Your task to perform on an android device: change notification settings in the gmail app Image 0: 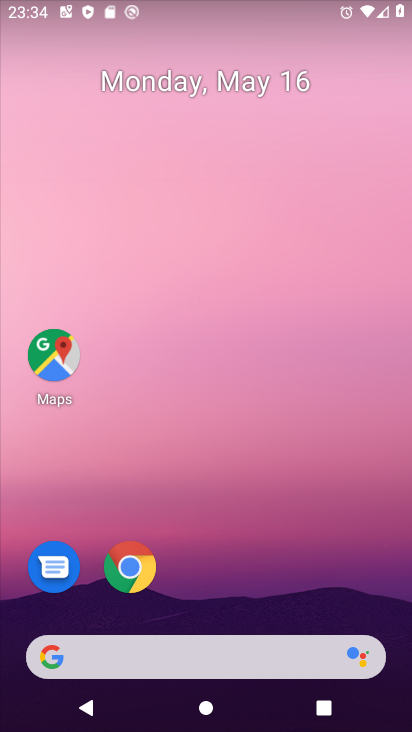
Step 0: drag from (246, 479) to (140, 14)
Your task to perform on an android device: change notification settings in the gmail app Image 1: 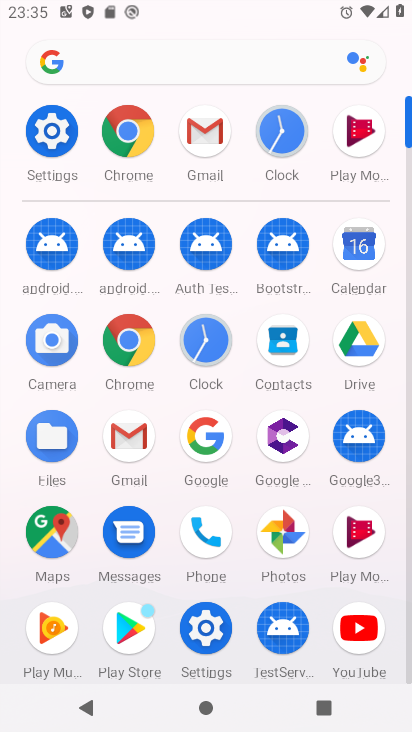
Step 1: click (126, 436)
Your task to perform on an android device: change notification settings in the gmail app Image 2: 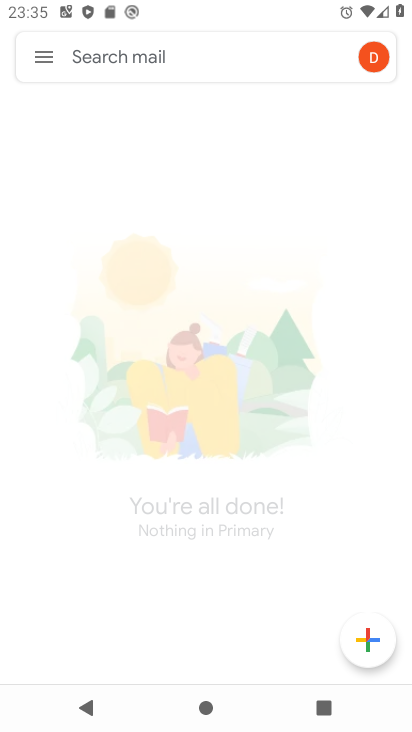
Step 2: click (43, 63)
Your task to perform on an android device: change notification settings in the gmail app Image 3: 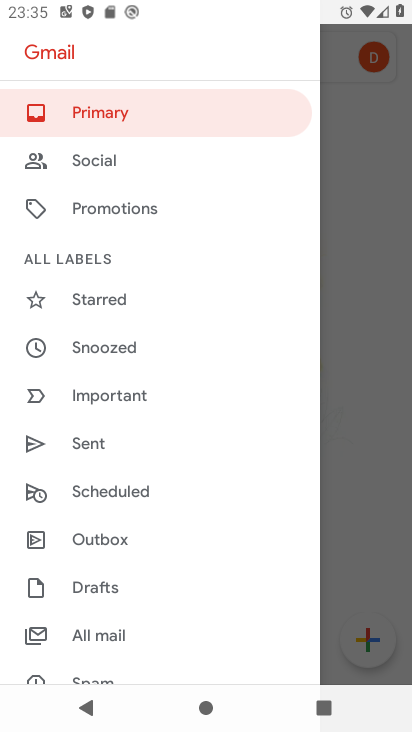
Step 3: drag from (168, 525) to (106, 181)
Your task to perform on an android device: change notification settings in the gmail app Image 4: 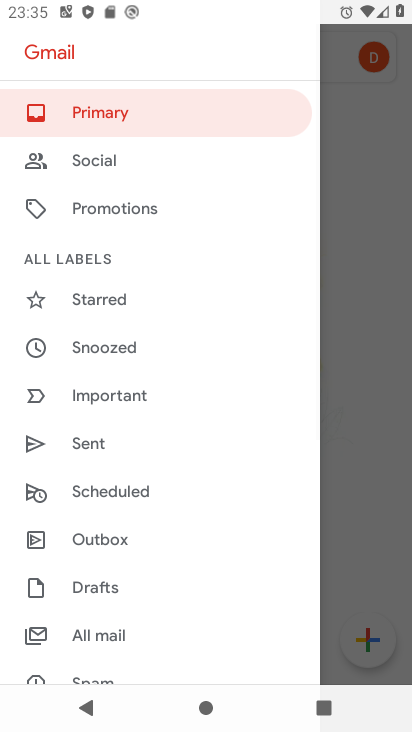
Step 4: drag from (138, 542) to (139, 289)
Your task to perform on an android device: change notification settings in the gmail app Image 5: 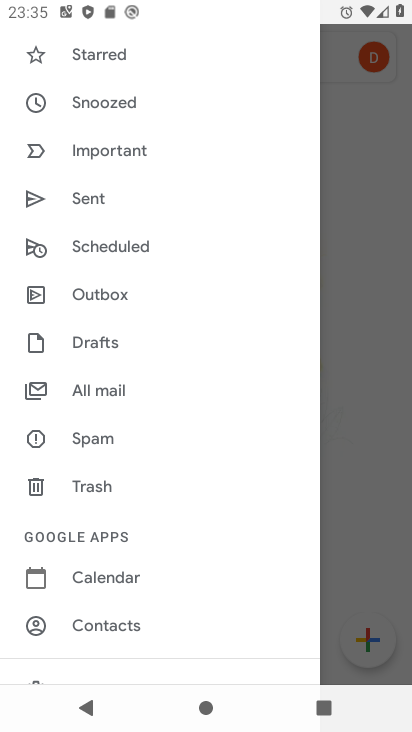
Step 5: drag from (198, 519) to (164, 237)
Your task to perform on an android device: change notification settings in the gmail app Image 6: 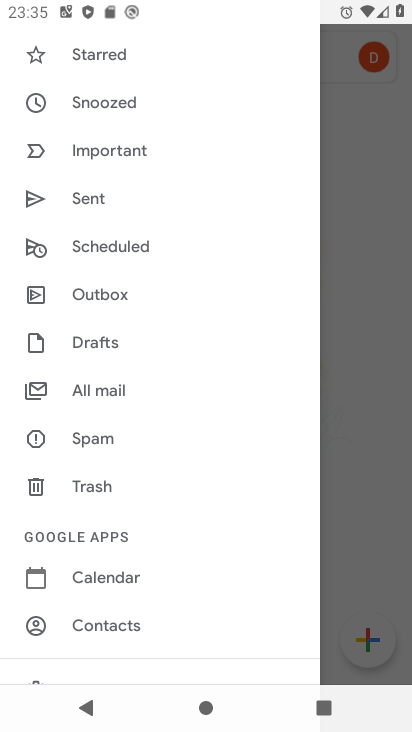
Step 6: drag from (88, 576) to (101, 329)
Your task to perform on an android device: change notification settings in the gmail app Image 7: 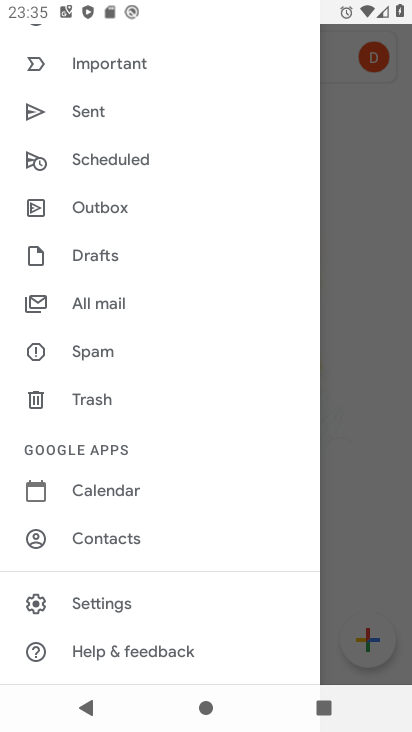
Step 7: click (93, 602)
Your task to perform on an android device: change notification settings in the gmail app Image 8: 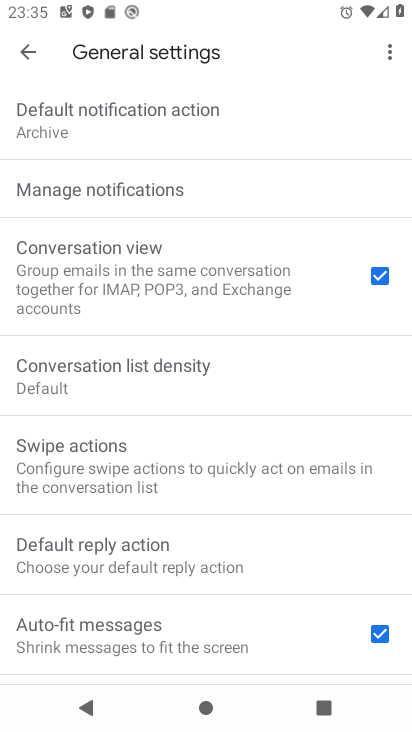
Step 8: click (109, 187)
Your task to perform on an android device: change notification settings in the gmail app Image 9: 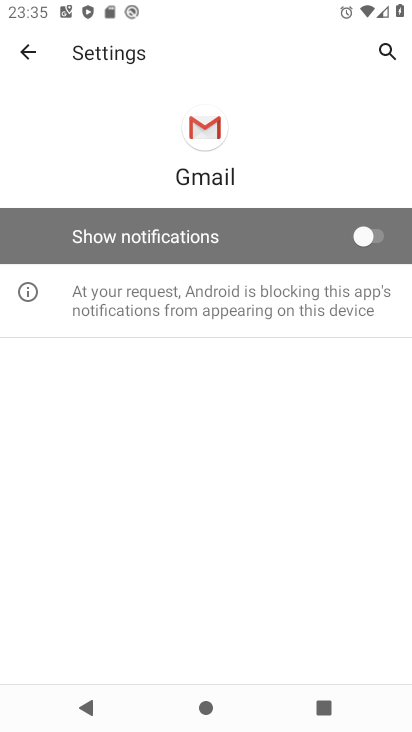
Step 9: click (370, 240)
Your task to perform on an android device: change notification settings in the gmail app Image 10: 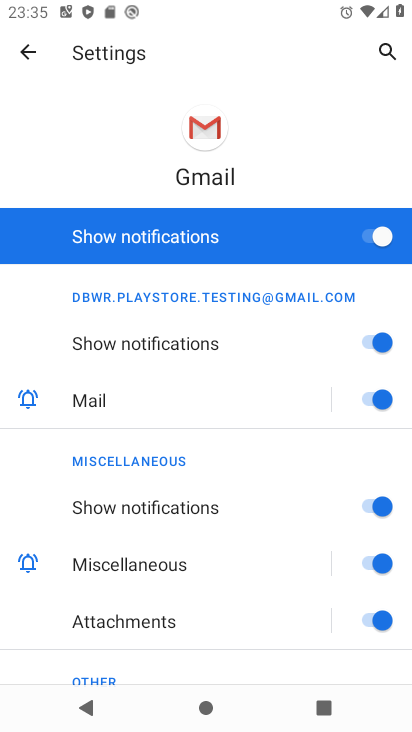
Step 10: task complete